Your task to perform on an android device: delete the emails in spam in the gmail app Image 0: 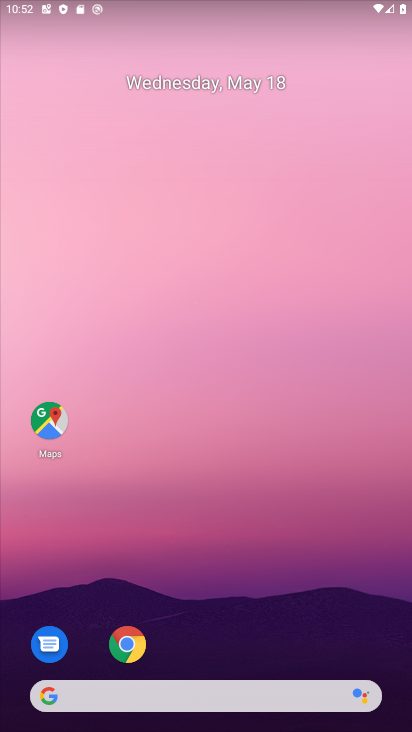
Step 0: drag from (333, 617) to (295, 147)
Your task to perform on an android device: delete the emails in spam in the gmail app Image 1: 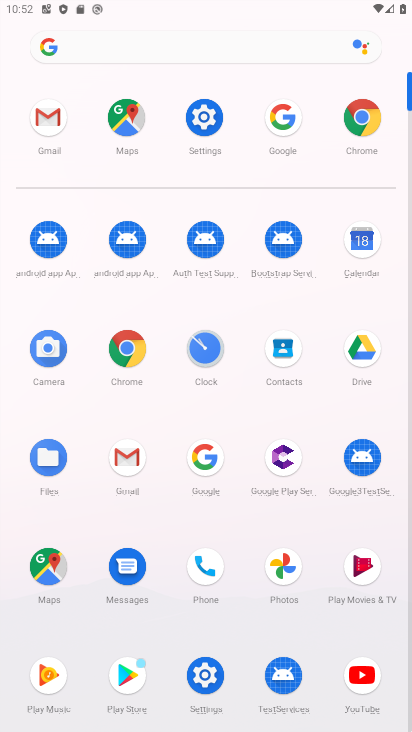
Step 1: click (124, 448)
Your task to perform on an android device: delete the emails in spam in the gmail app Image 2: 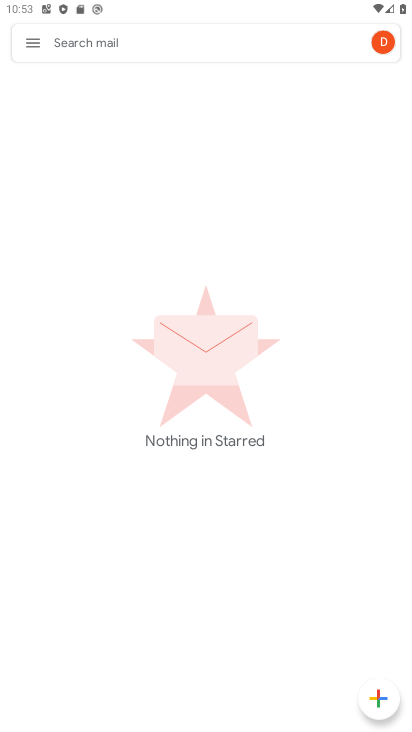
Step 2: task complete